Your task to perform on an android device: Is it going to rain this weekend? Image 0: 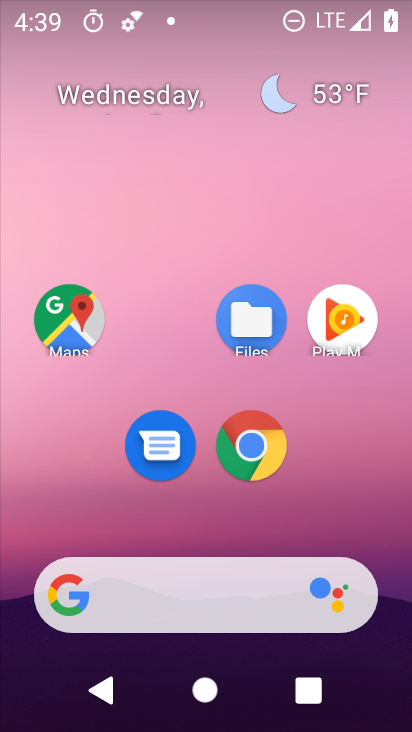
Step 0: click (201, 591)
Your task to perform on an android device: Is it going to rain this weekend? Image 1: 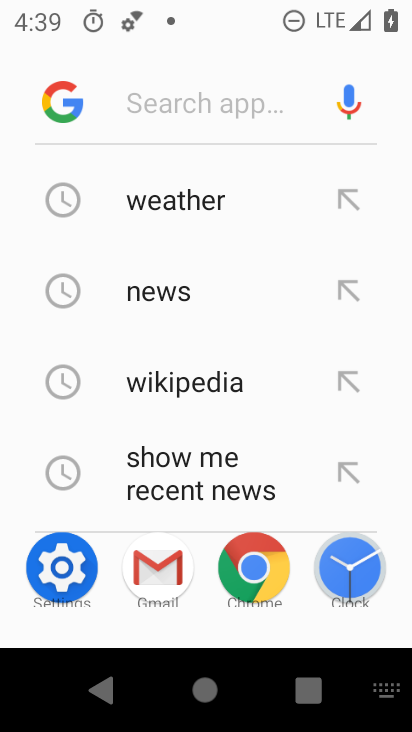
Step 1: click (198, 194)
Your task to perform on an android device: Is it going to rain this weekend? Image 2: 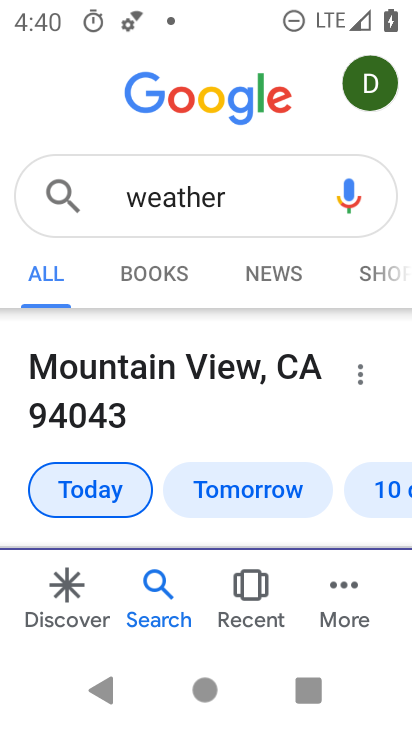
Step 2: click (393, 480)
Your task to perform on an android device: Is it going to rain this weekend? Image 3: 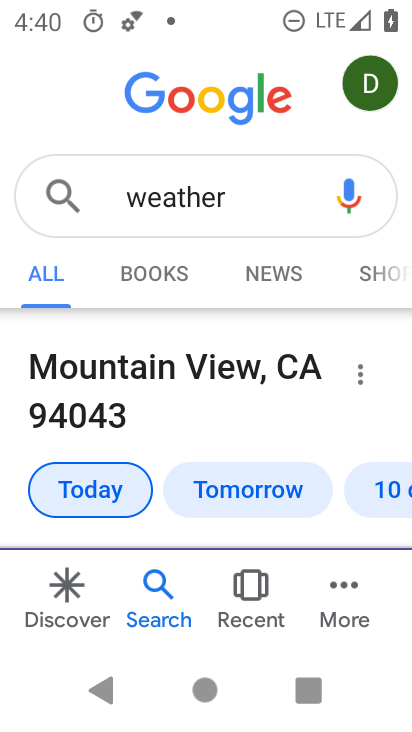
Step 3: click (393, 480)
Your task to perform on an android device: Is it going to rain this weekend? Image 4: 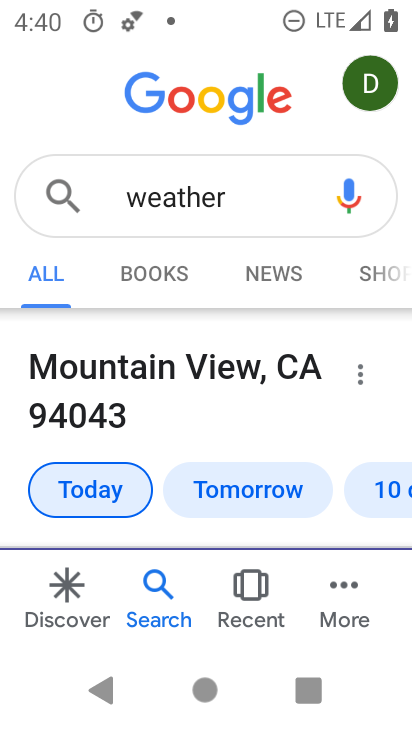
Step 4: click (393, 480)
Your task to perform on an android device: Is it going to rain this weekend? Image 5: 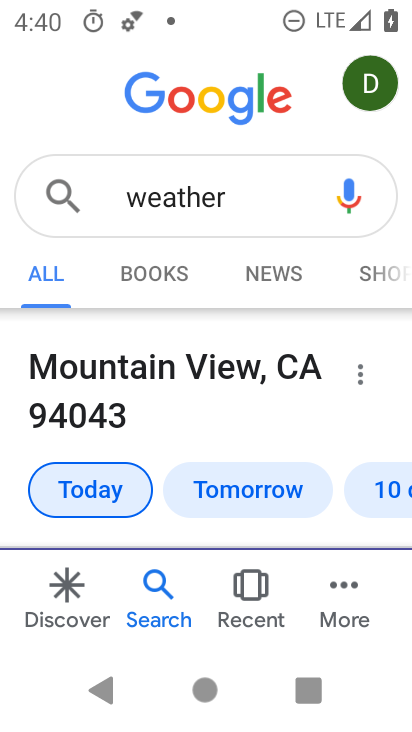
Step 5: click (393, 480)
Your task to perform on an android device: Is it going to rain this weekend? Image 6: 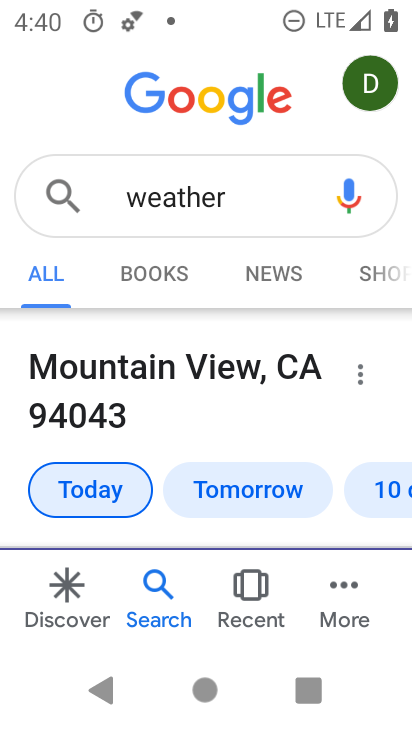
Step 6: click (393, 480)
Your task to perform on an android device: Is it going to rain this weekend? Image 7: 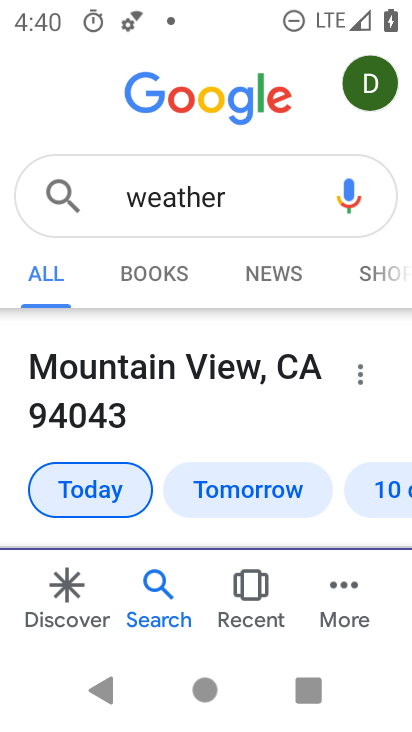
Step 7: drag from (361, 525) to (309, 198)
Your task to perform on an android device: Is it going to rain this weekend? Image 8: 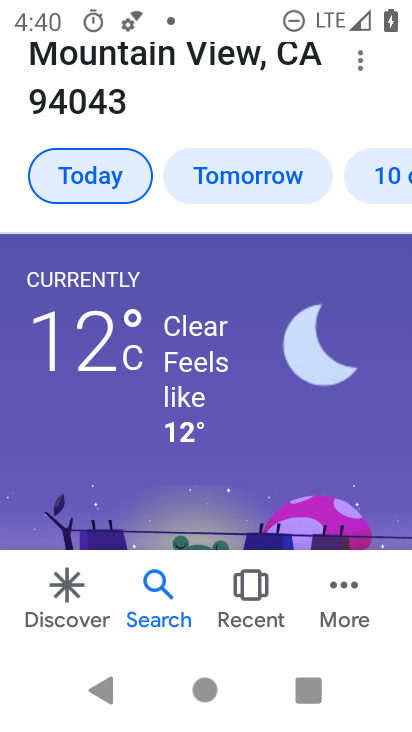
Step 8: drag from (296, 413) to (301, 50)
Your task to perform on an android device: Is it going to rain this weekend? Image 9: 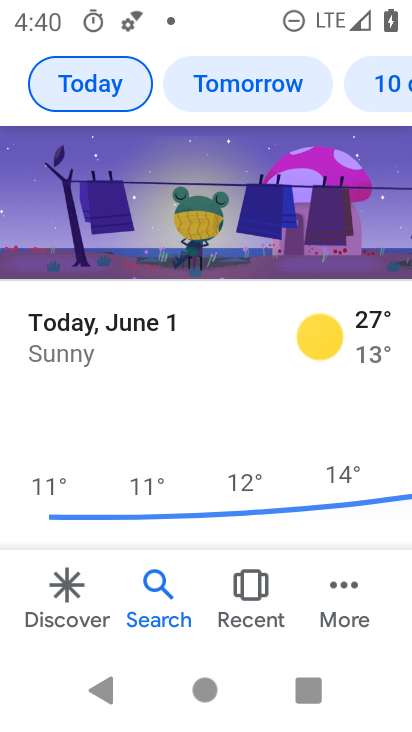
Step 9: drag from (270, 445) to (303, 150)
Your task to perform on an android device: Is it going to rain this weekend? Image 10: 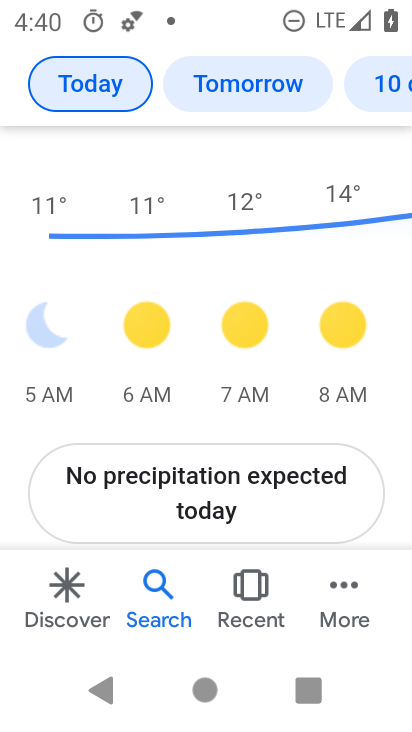
Step 10: click (385, 80)
Your task to perform on an android device: Is it going to rain this weekend? Image 11: 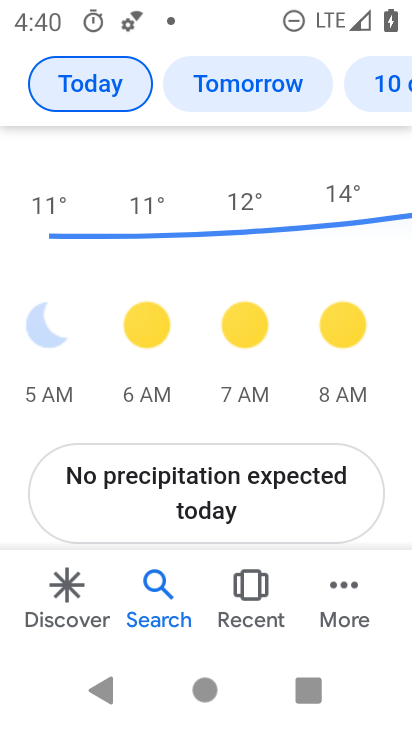
Step 11: click (385, 80)
Your task to perform on an android device: Is it going to rain this weekend? Image 12: 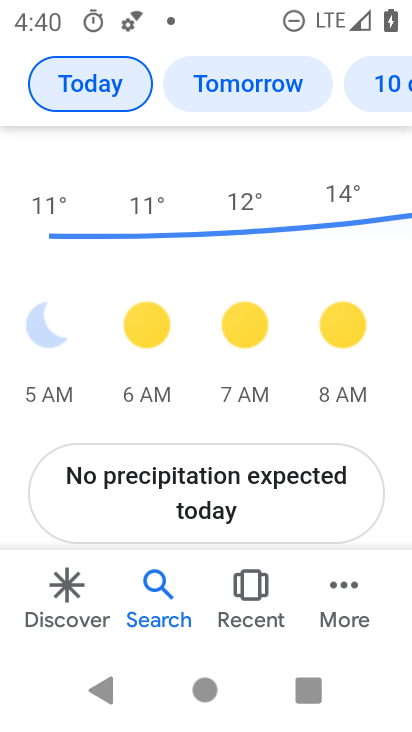
Step 12: click (385, 80)
Your task to perform on an android device: Is it going to rain this weekend? Image 13: 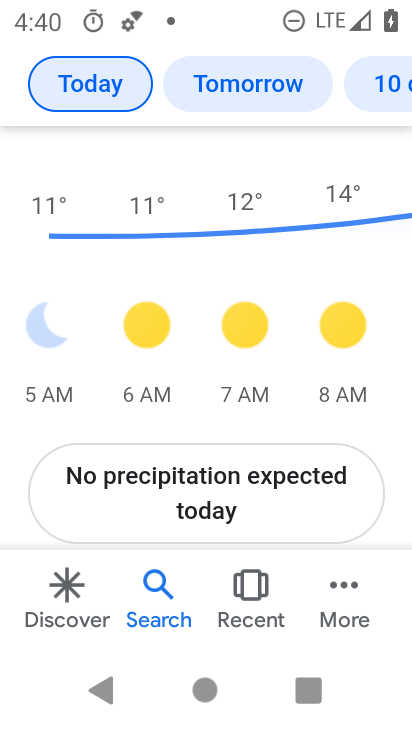
Step 13: click (385, 80)
Your task to perform on an android device: Is it going to rain this weekend? Image 14: 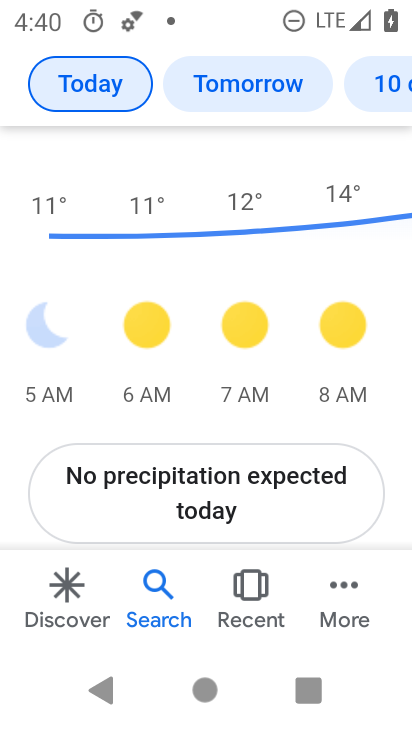
Step 14: click (385, 80)
Your task to perform on an android device: Is it going to rain this weekend? Image 15: 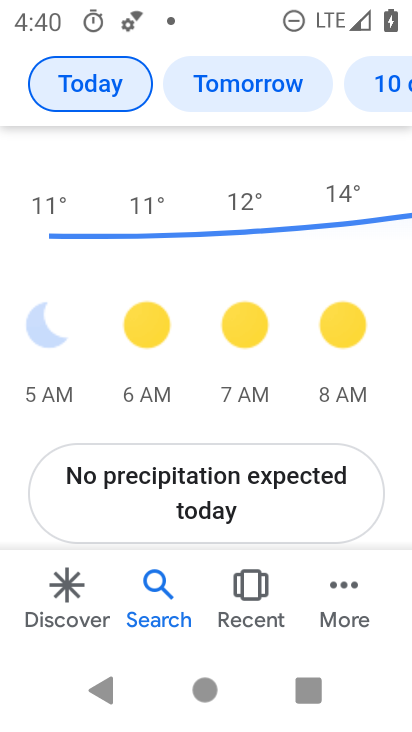
Step 15: task complete